Your task to perform on an android device: Open Google Chrome Image 0: 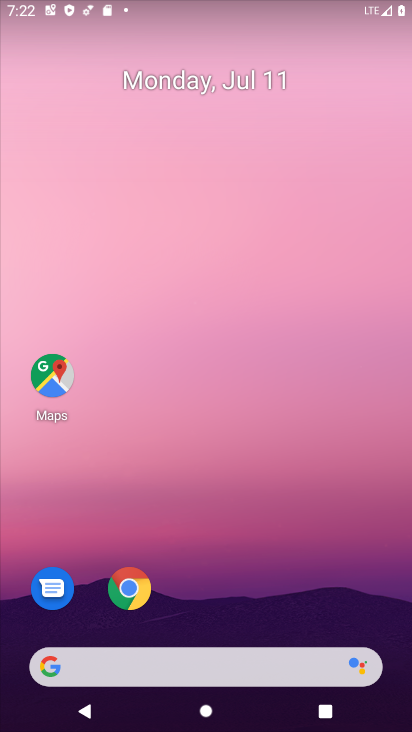
Step 0: drag from (372, 626) to (149, 56)
Your task to perform on an android device: Open Google Chrome Image 1: 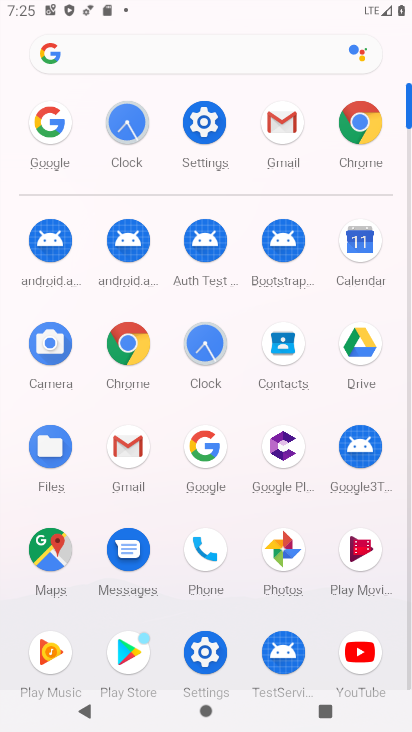
Step 1: click (123, 333)
Your task to perform on an android device: Open Google Chrome Image 2: 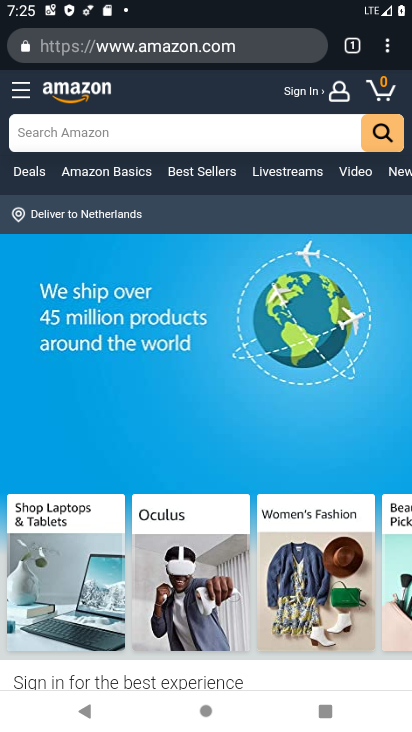
Step 2: task complete